Your task to perform on an android device: Open Yahoo.com Image 0: 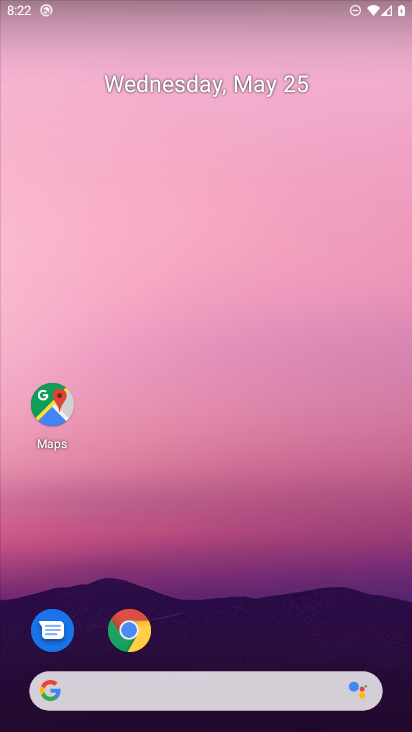
Step 0: click (124, 622)
Your task to perform on an android device: Open Yahoo.com Image 1: 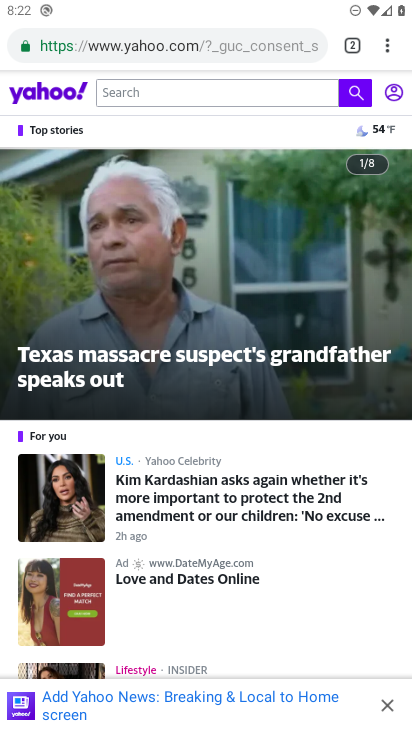
Step 1: task complete